Your task to perform on an android device: Open accessibility settings Image 0: 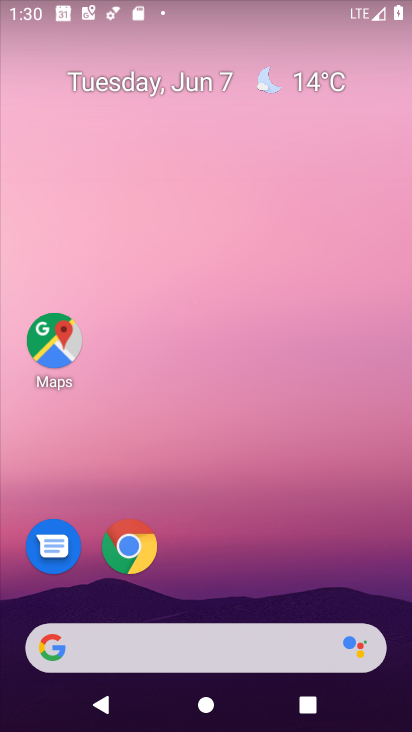
Step 0: drag from (233, 543) to (236, 23)
Your task to perform on an android device: Open accessibility settings Image 1: 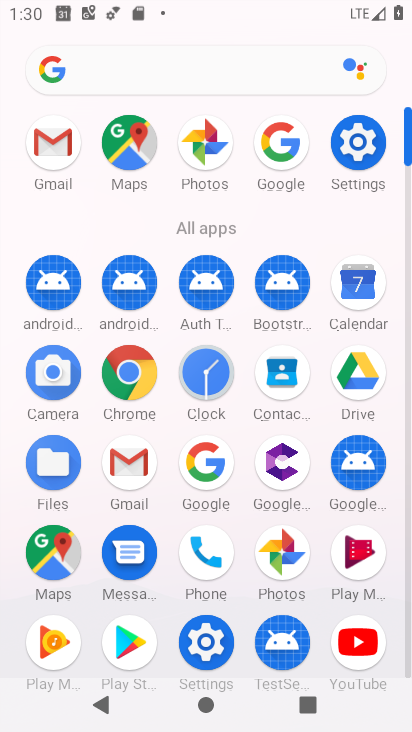
Step 1: click (368, 147)
Your task to perform on an android device: Open accessibility settings Image 2: 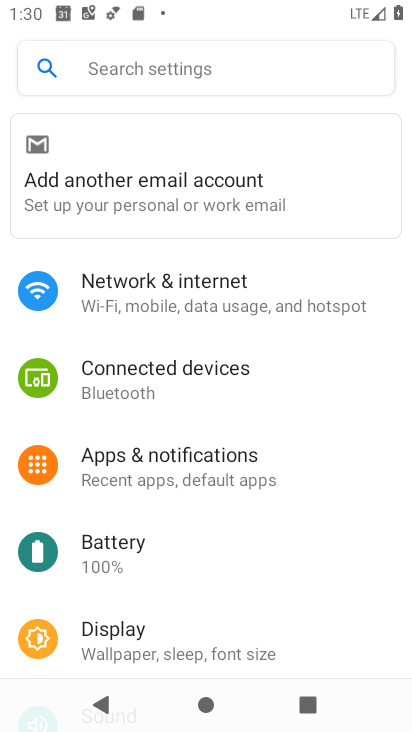
Step 2: drag from (272, 617) to (264, 193)
Your task to perform on an android device: Open accessibility settings Image 3: 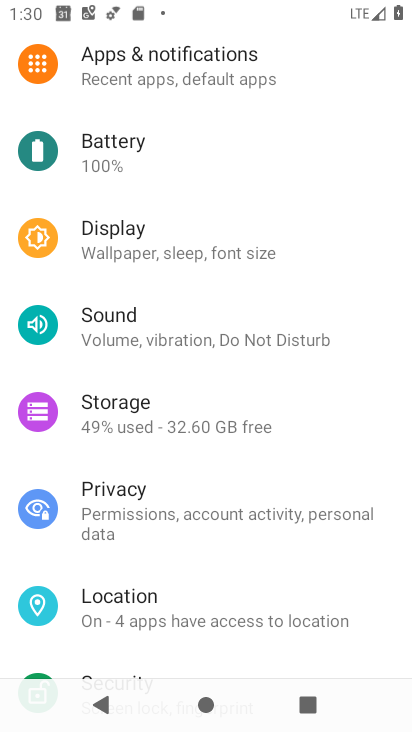
Step 3: drag from (253, 609) to (291, 172)
Your task to perform on an android device: Open accessibility settings Image 4: 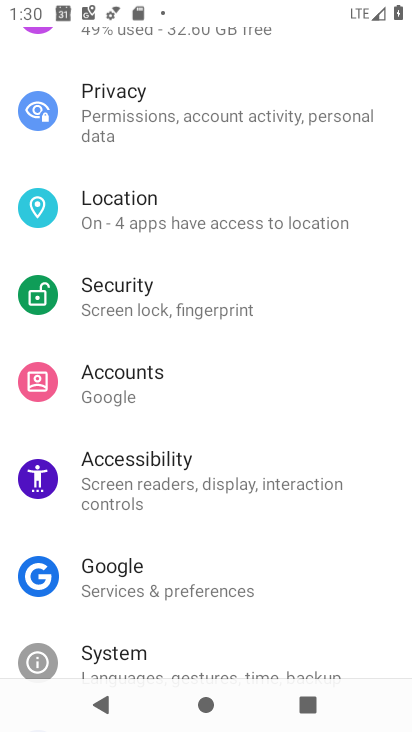
Step 4: click (191, 467)
Your task to perform on an android device: Open accessibility settings Image 5: 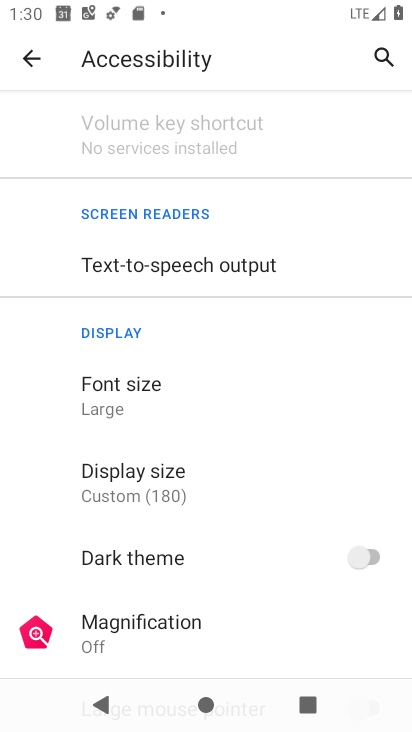
Step 5: task complete